Your task to perform on an android device: Open the phone app and click the voicemail tab. Image 0: 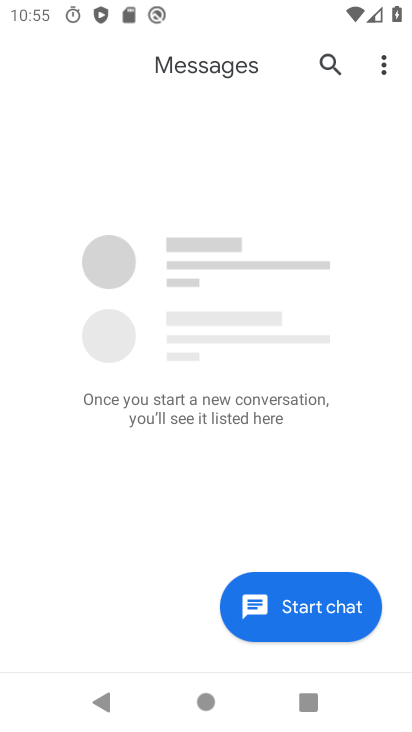
Step 0: press home button
Your task to perform on an android device: Open the phone app and click the voicemail tab. Image 1: 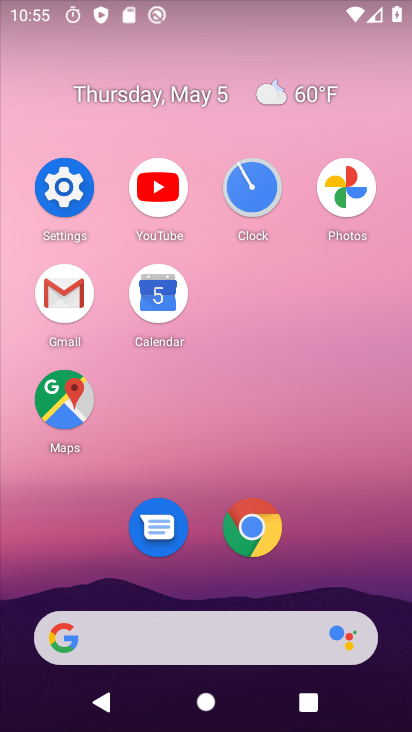
Step 1: drag from (301, 514) to (284, 175)
Your task to perform on an android device: Open the phone app and click the voicemail tab. Image 2: 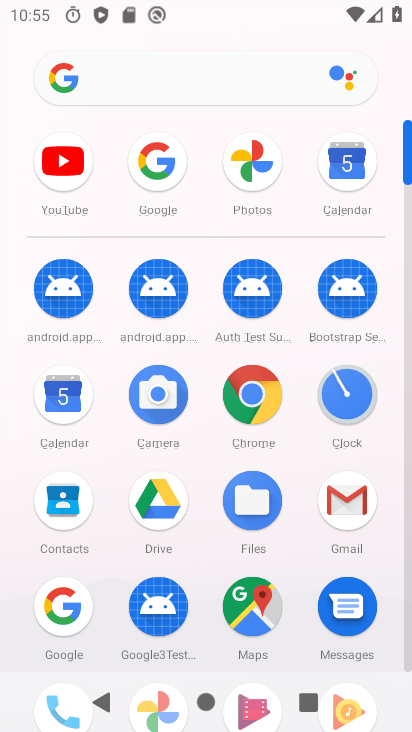
Step 2: drag from (221, 532) to (202, 275)
Your task to perform on an android device: Open the phone app and click the voicemail tab. Image 3: 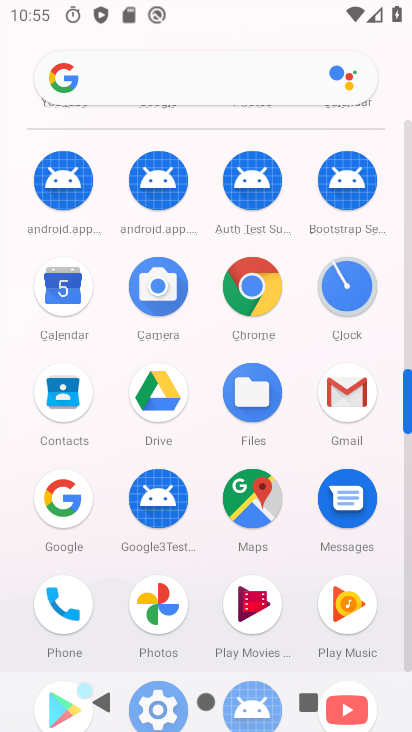
Step 3: click (80, 606)
Your task to perform on an android device: Open the phone app and click the voicemail tab. Image 4: 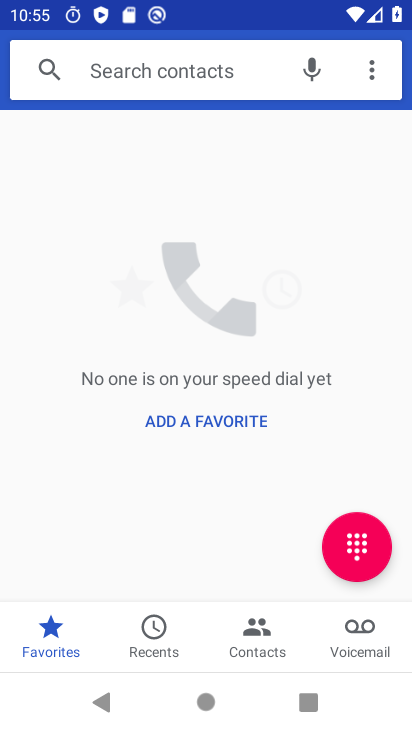
Step 4: click (345, 648)
Your task to perform on an android device: Open the phone app and click the voicemail tab. Image 5: 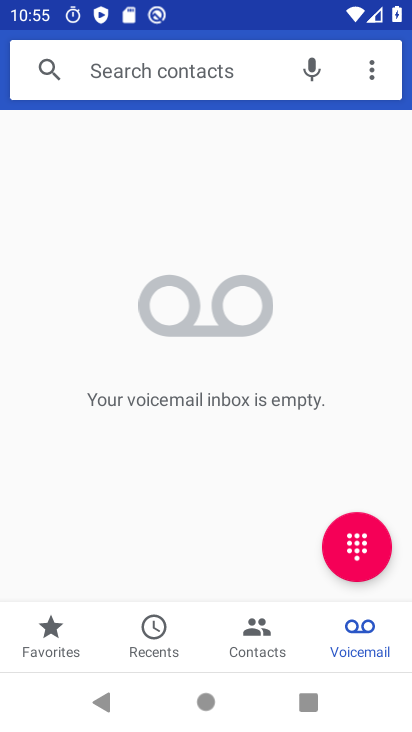
Step 5: task complete